Your task to perform on an android device: Open the Play Movies app and select the watchlist tab. Image 0: 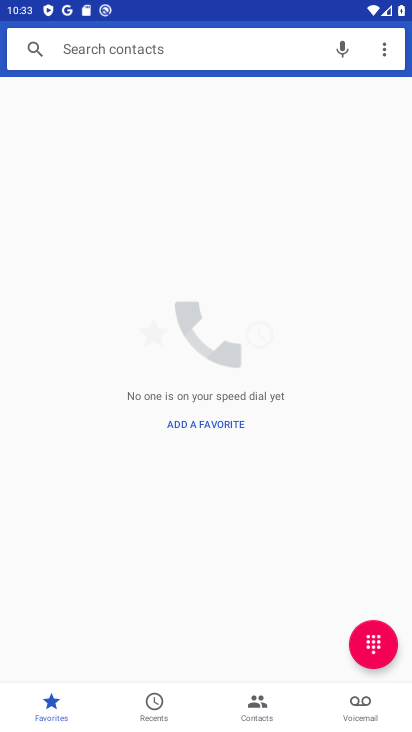
Step 0: press home button
Your task to perform on an android device: Open the Play Movies app and select the watchlist tab. Image 1: 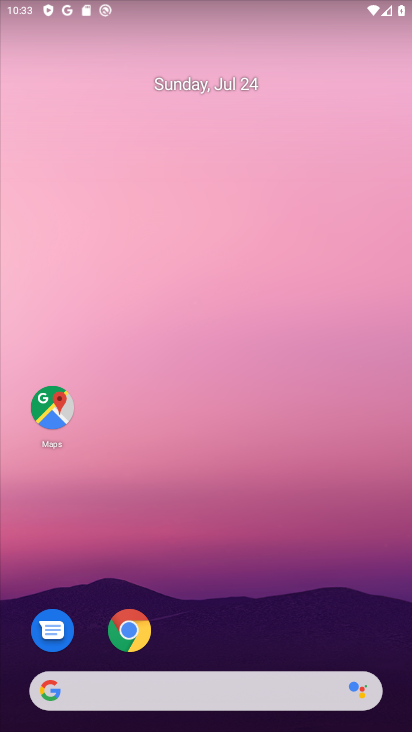
Step 1: drag from (273, 625) to (268, 144)
Your task to perform on an android device: Open the Play Movies app and select the watchlist tab. Image 2: 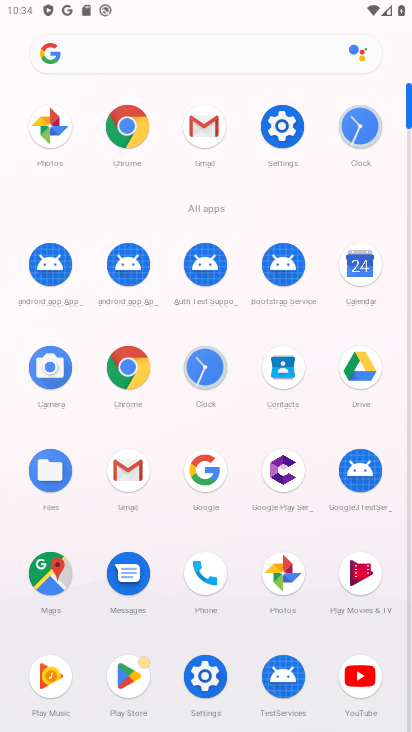
Step 2: click (362, 555)
Your task to perform on an android device: Open the Play Movies app and select the watchlist tab. Image 3: 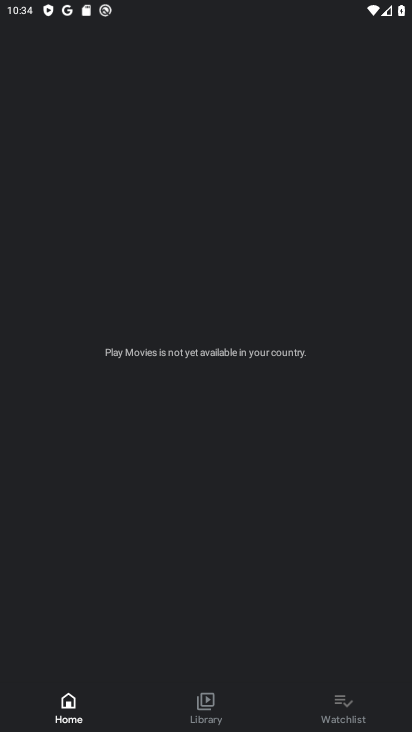
Step 3: click (348, 705)
Your task to perform on an android device: Open the Play Movies app and select the watchlist tab. Image 4: 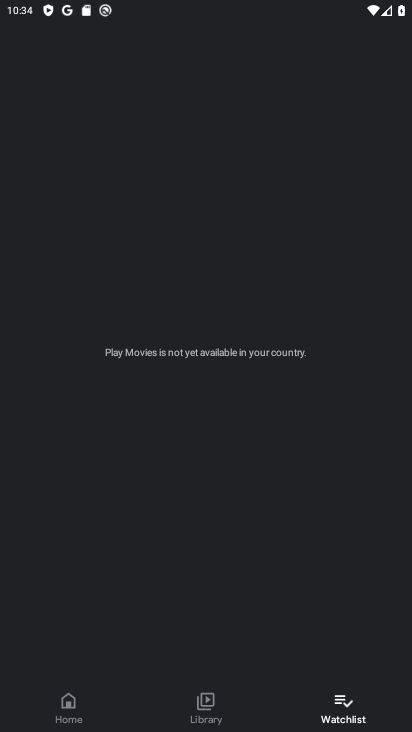
Step 4: task complete